Your task to perform on an android device: toggle airplane mode Image 0: 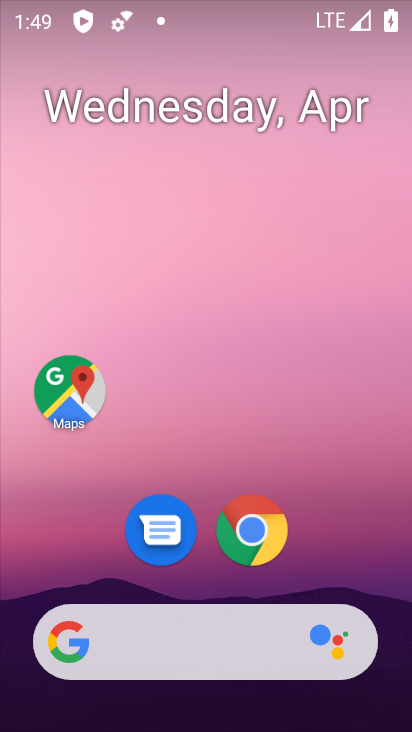
Step 0: drag from (272, 4) to (256, 494)
Your task to perform on an android device: toggle airplane mode Image 1: 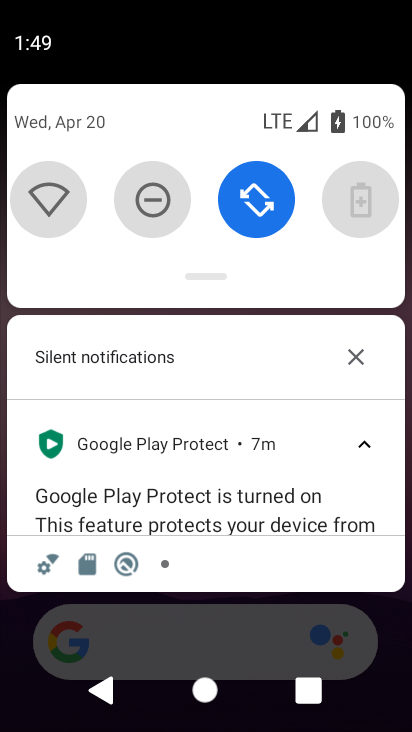
Step 1: drag from (269, 252) to (256, 473)
Your task to perform on an android device: toggle airplane mode Image 2: 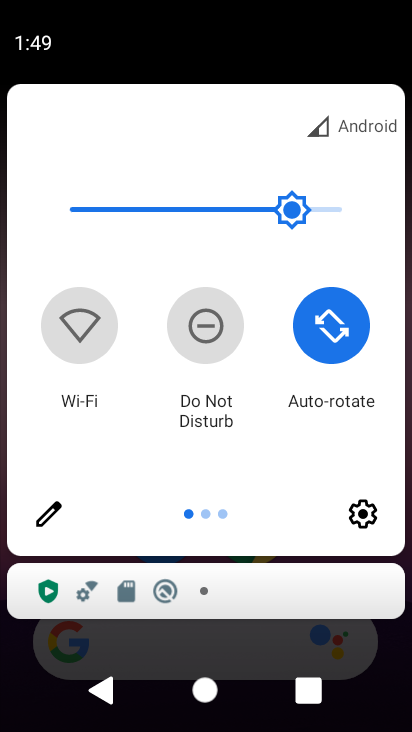
Step 2: drag from (364, 369) to (56, 368)
Your task to perform on an android device: toggle airplane mode Image 3: 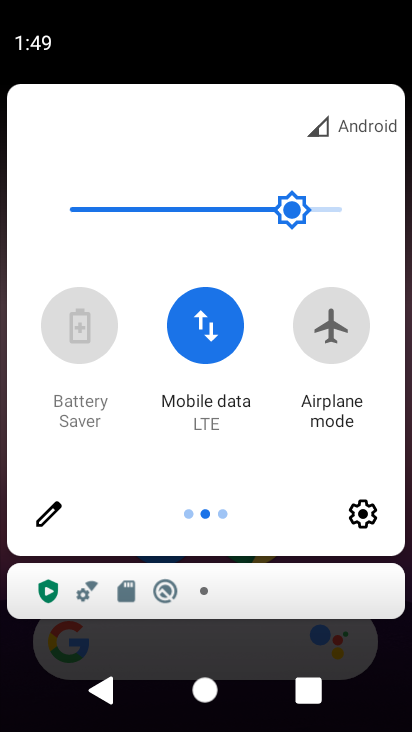
Step 3: click (328, 326)
Your task to perform on an android device: toggle airplane mode Image 4: 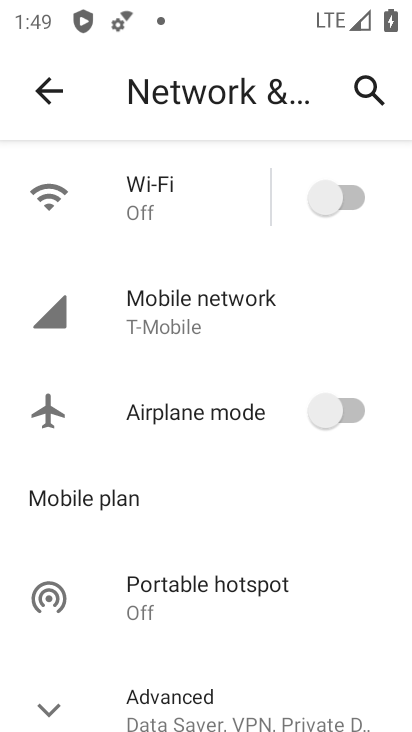
Step 4: click (335, 395)
Your task to perform on an android device: toggle airplane mode Image 5: 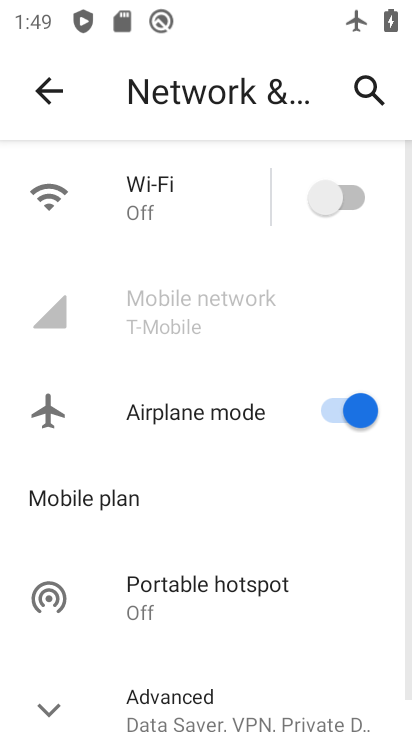
Step 5: task complete